Your task to perform on an android device: Open calendar and show me the third week of next month Image 0: 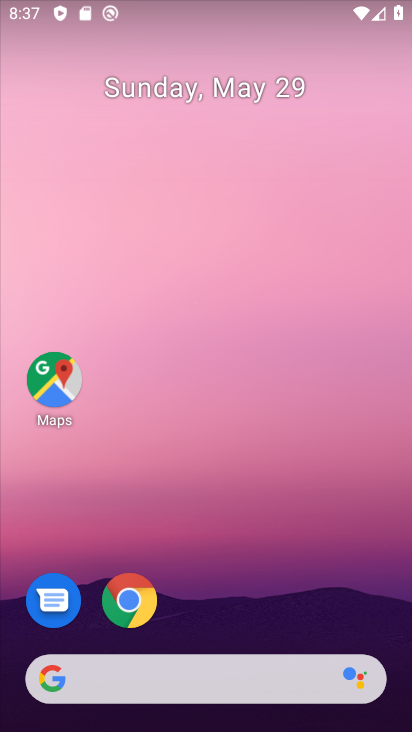
Step 0: drag from (232, 724) to (237, 31)
Your task to perform on an android device: Open calendar and show me the third week of next month Image 1: 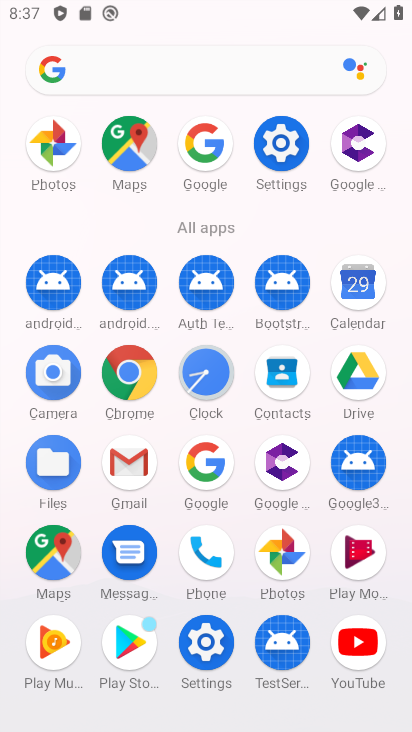
Step 1: click (360, 287)
Your task to perform on an android device: Open calendar and show me the third week of next month Image 2: 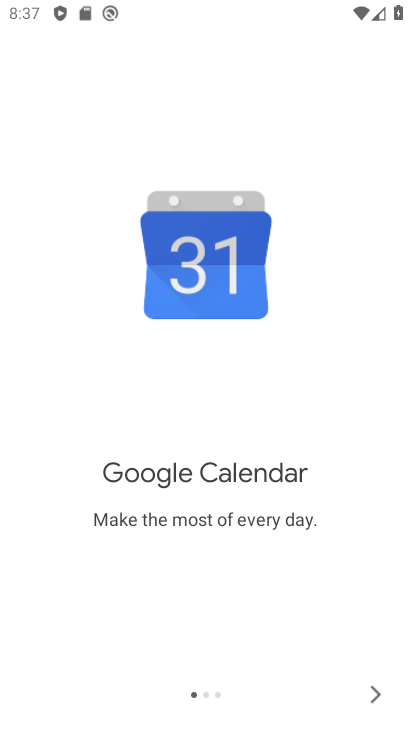
Step 2: click (378, 693)
Your task to perform on an android device: Open calendar and show me the third week of next month Image 3: 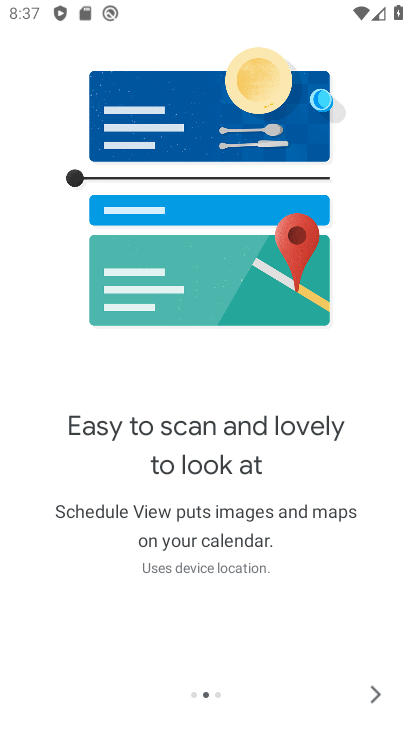
Step 3: click (378, 693)
Your task to perform on an android device: Open calendar and show me the third week of next month Image 4: 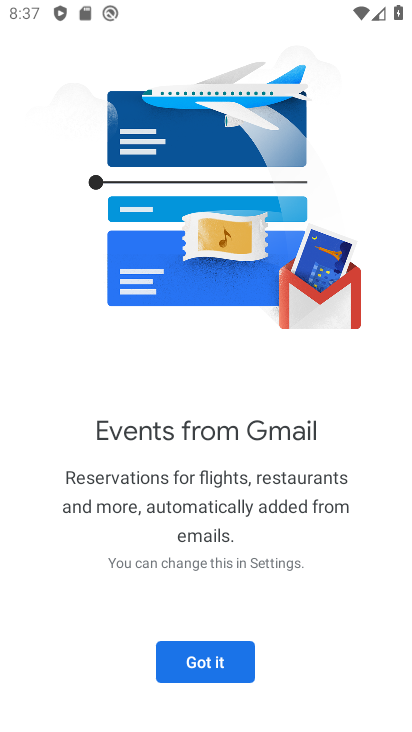
Step 4: click (216, 660)
Your task to perform on an android device: Open calendar and show me the third week of next month Image 5: 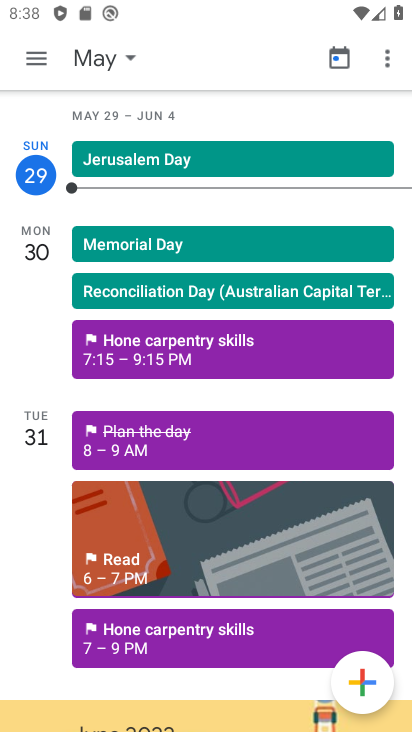
Step 5: click (133, 54)
Your task to perform on an android device: Open calendar and show me the third week of next month Image 6: 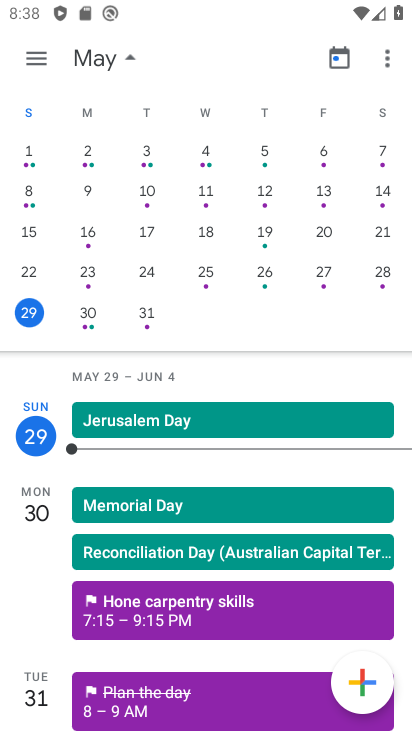
Step 6: drag from (374, 225) to (1, 277)
Your task to perform on an android device: Open calendar and show me the third week of next month Image 7: 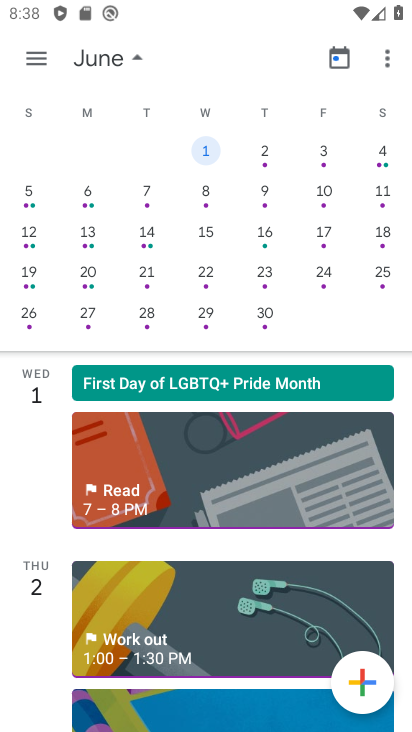
Step 7: click (92, 270)
Your task to perform on an android device: Open calendar and show me the third week of next month Image 8: 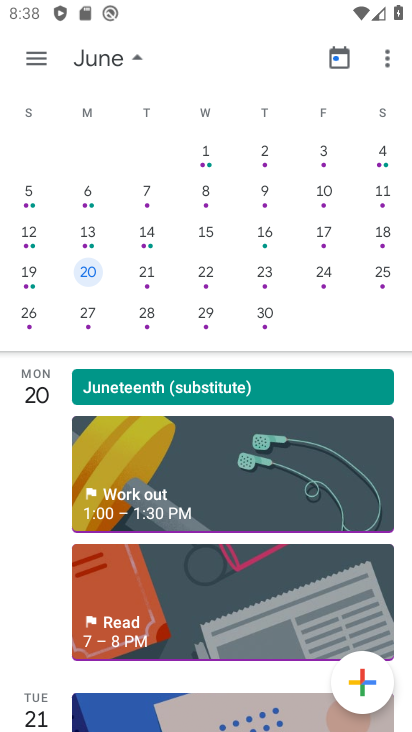
Step 8: click (92, 270)
Your task to perform on an android device: Open calendar and show me the third week of next month Image 9: 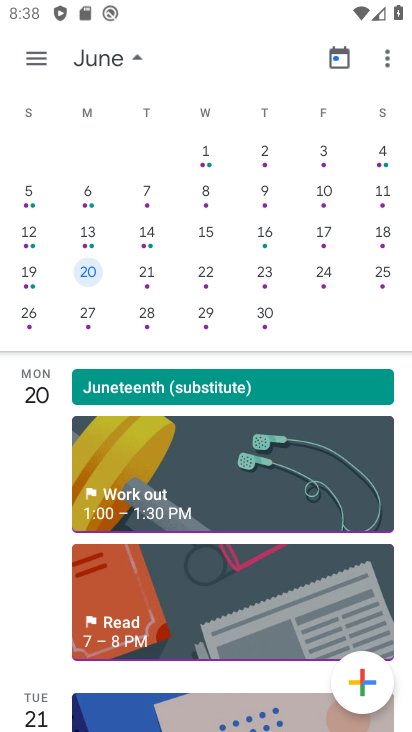
Step 9: click (34, 60)
Your task to perform on an android device: Open calendar and show me the third week of next month Image 10: 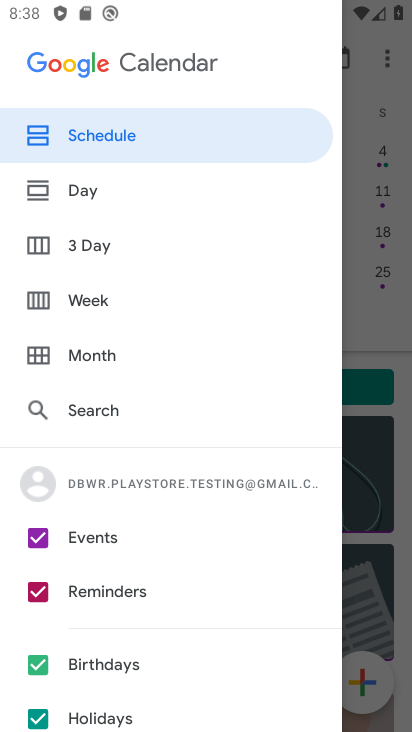
Step 10: click (76, 294)
Your task to perform on an android device: Open calendar and show me the third week of next month Image 11: 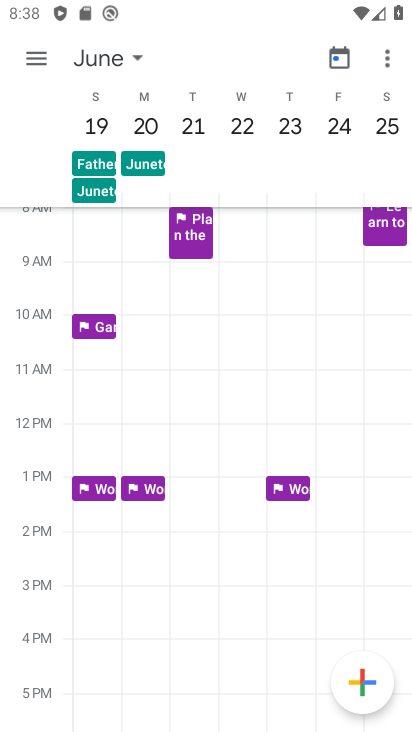
Step 11: task complete